Your task to perform on an android device: Open the Play Movies app and select the watchlist tab. Image 0: 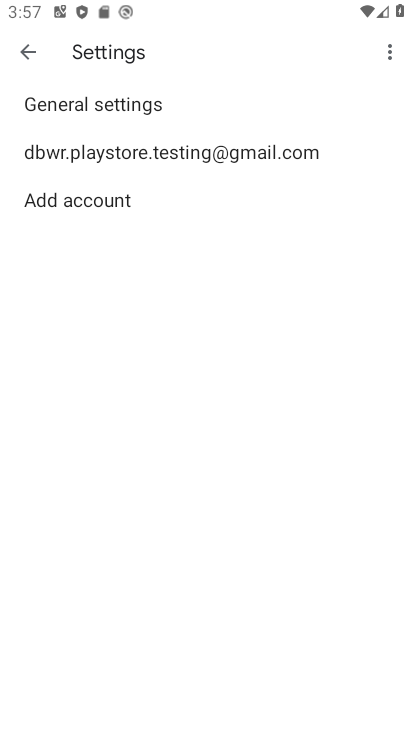
Step 0: press home button
Your task to perform on an android device: Open the Play Movies app and select the watchlist tab. Image 1: 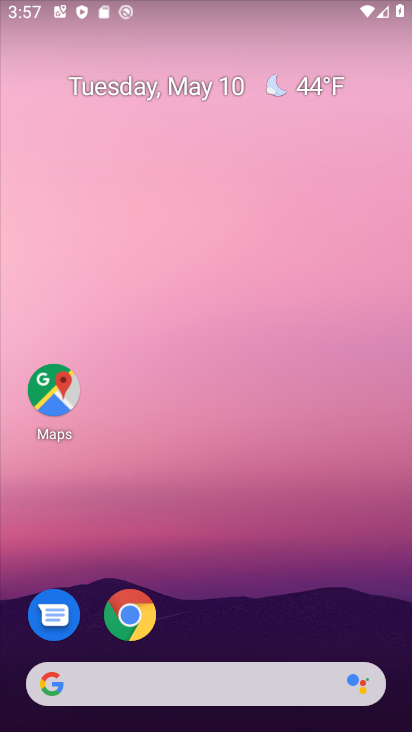
Step 1: drag from (211, 722) to (211, 331)
Your task to perform on an android device: Open the Play Movies app and select the watchlist tab. Image 2: 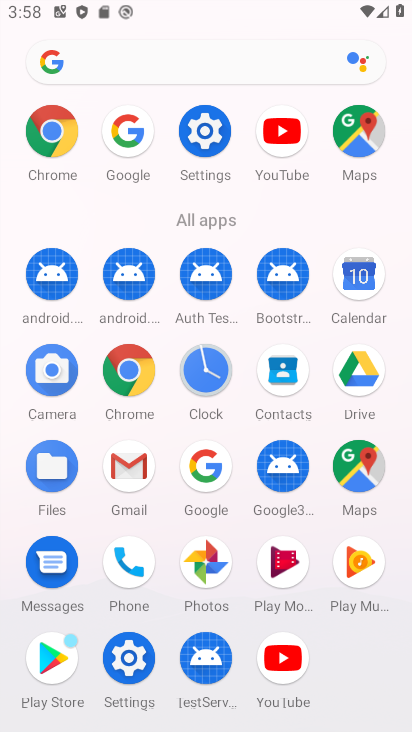
Step 2: click (288, 565)
Your task to perform on an android device: Open the Play Movies app and select the watchlist tab. Image 3: 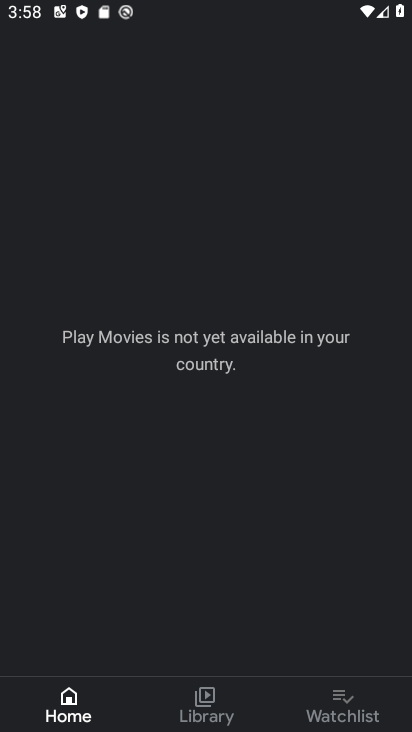
Step 3: click (329, 699)
Your task to perform on an android device: Open the Play Movies app and select the watchlist tab. Image 4: 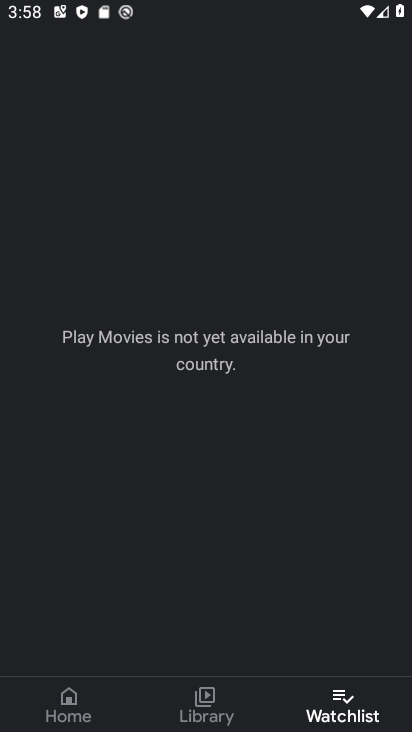
Step 4: task complete